Your task to perform on an android device: toggle improve location accuracy Image 0: 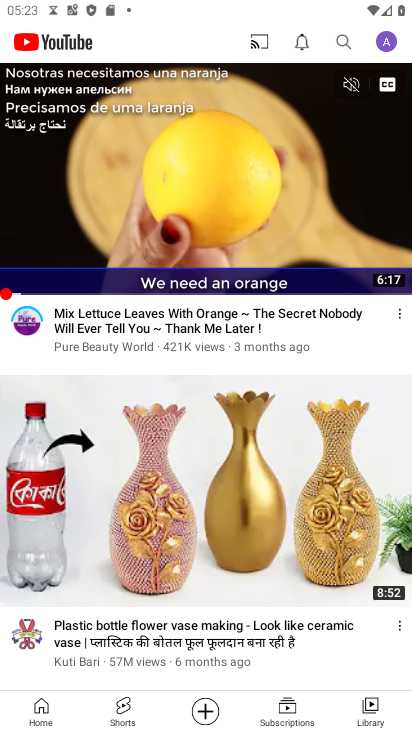
Step 0: press home button
Your task to perform on an android device: toggle improve location accuracy Image 1: 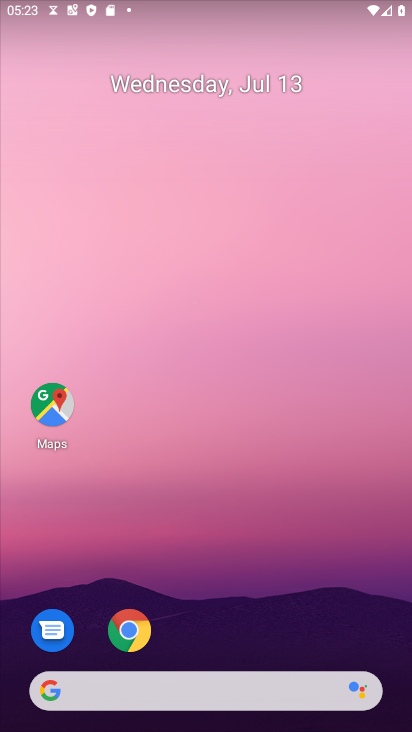
Step 1: drag from (337, 715) to (385, 36)
Your task to perform on an android device: toggle improve location accuracy Image 2: 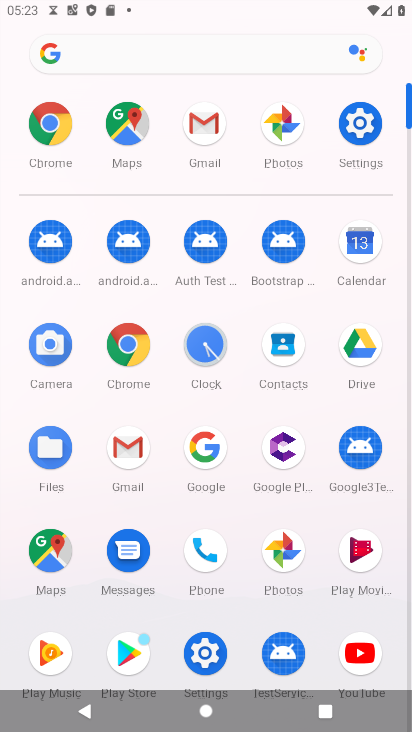
Step 2: click (363, 126)
Your task to perform on an android device: toggle improve location accuracy Image 3: 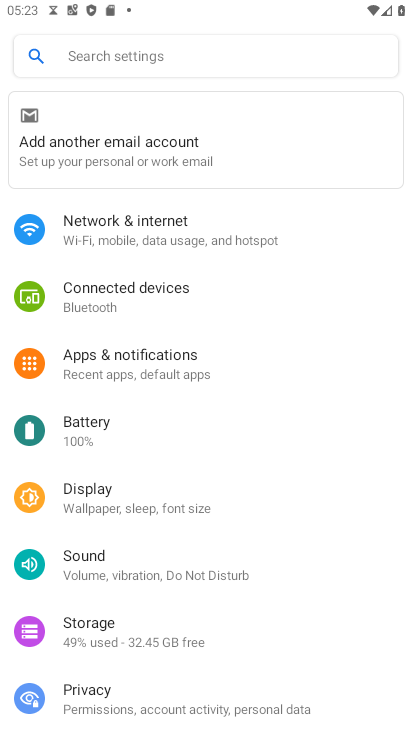
Step 3: drag from (116, 677) to (138, 404)
Your task to perform on an android device: toggle improve location accuracy Image 4: 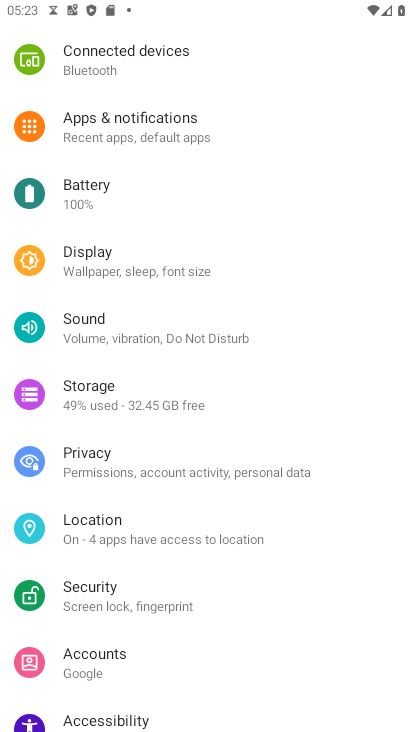
Step 4: click (162, 537)
Your task to perform on an android device: toggle improve location accuracy Image 5: 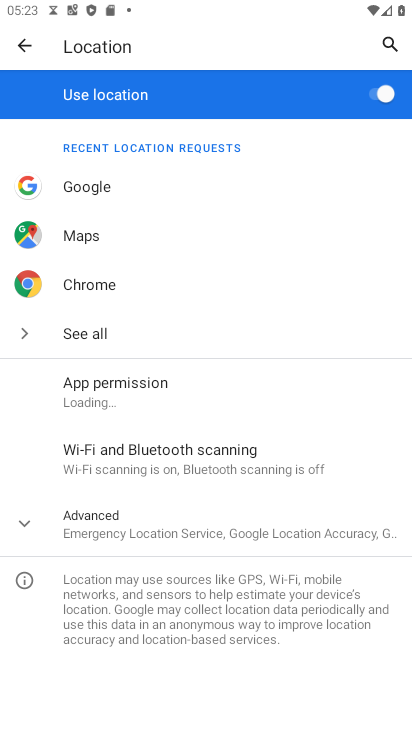
Step 5: click (162, 537)
Your task to perform on an android device: toggle improve location accuracy Image 6: 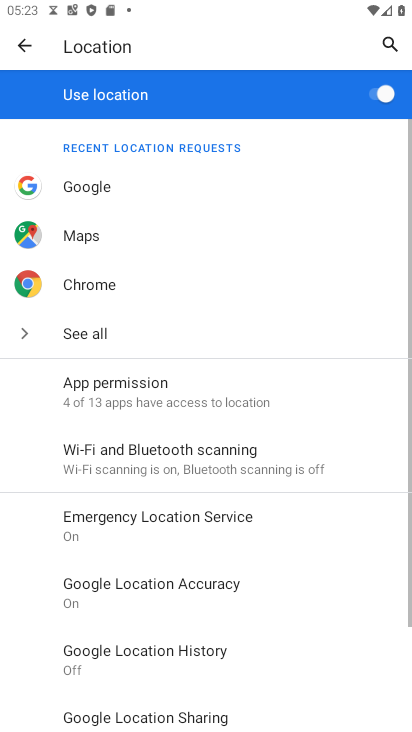
Step 6: click (215, 591)
Your task to perform on an android device: toggle improve location accuracy Image 7: 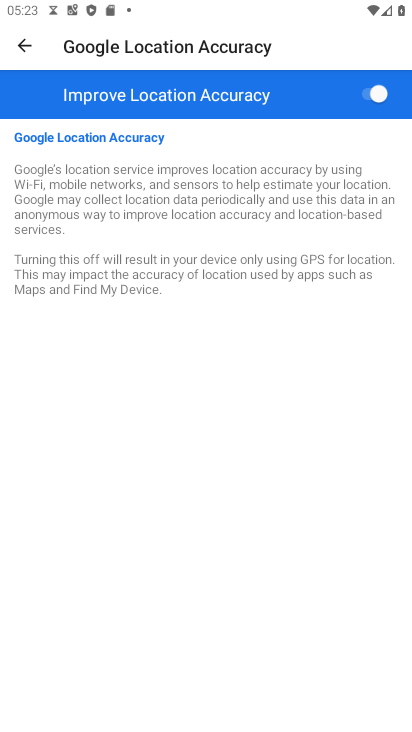
Step 7: click (379, 88)
Your task to perform on an android device: toggle improve location accuracy Image 8: 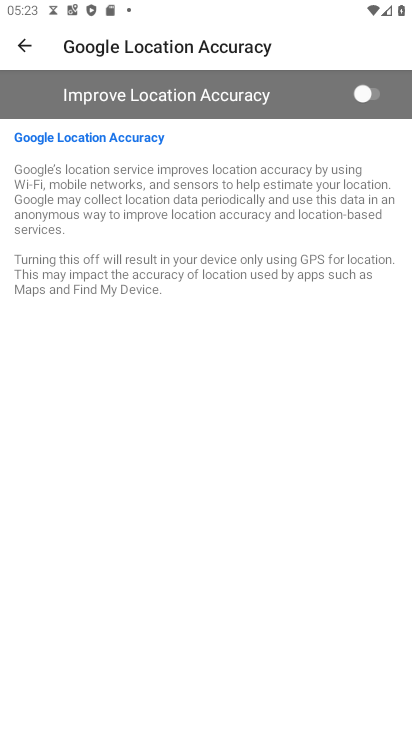
Step 8: task complete